Your task to perform on an android device: turn on improve location accuracy Image 0: 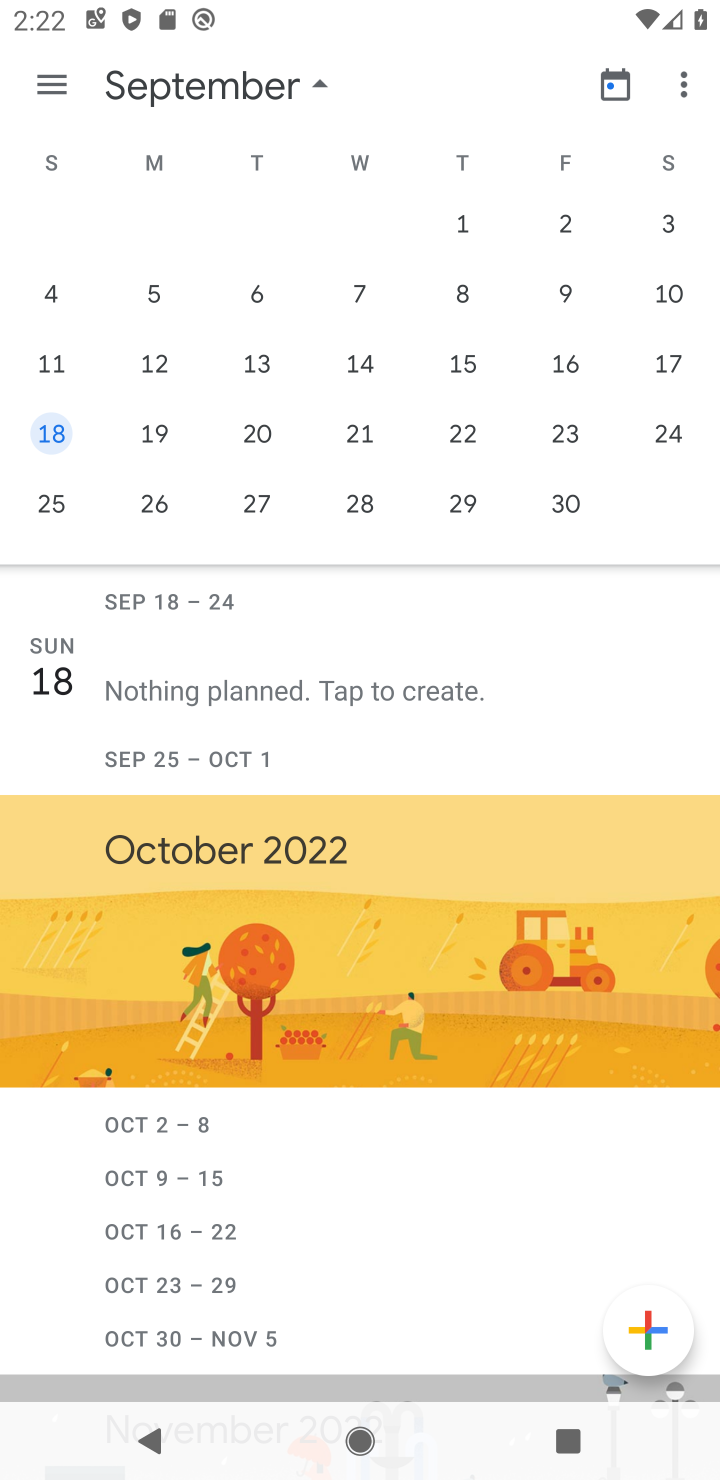
Step 0: press home button
Your task to perform on an android device: turn on improve location accuracy Image 1: 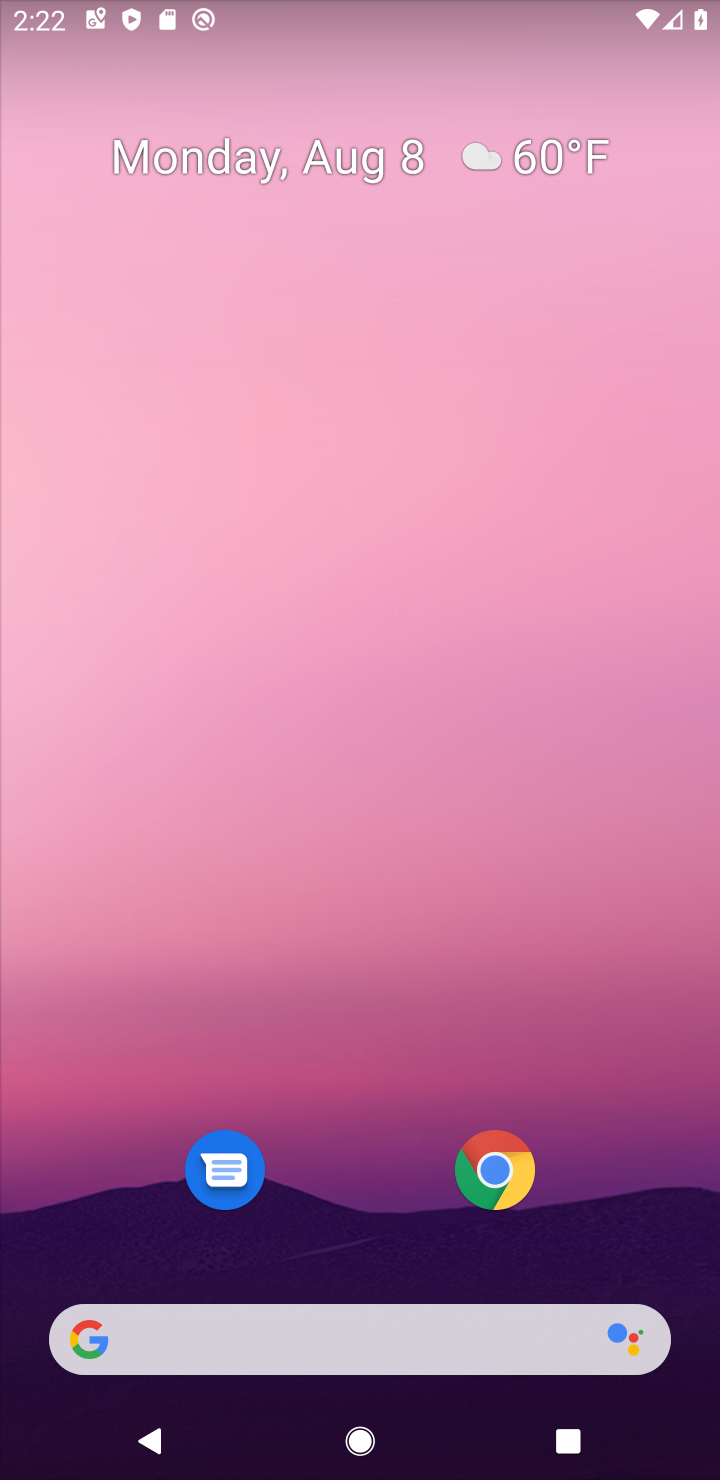
Step 1: drag from (301, 694) to (336, 317)
Your task to perform on an android device: turn on improve location accuracy Image 2: 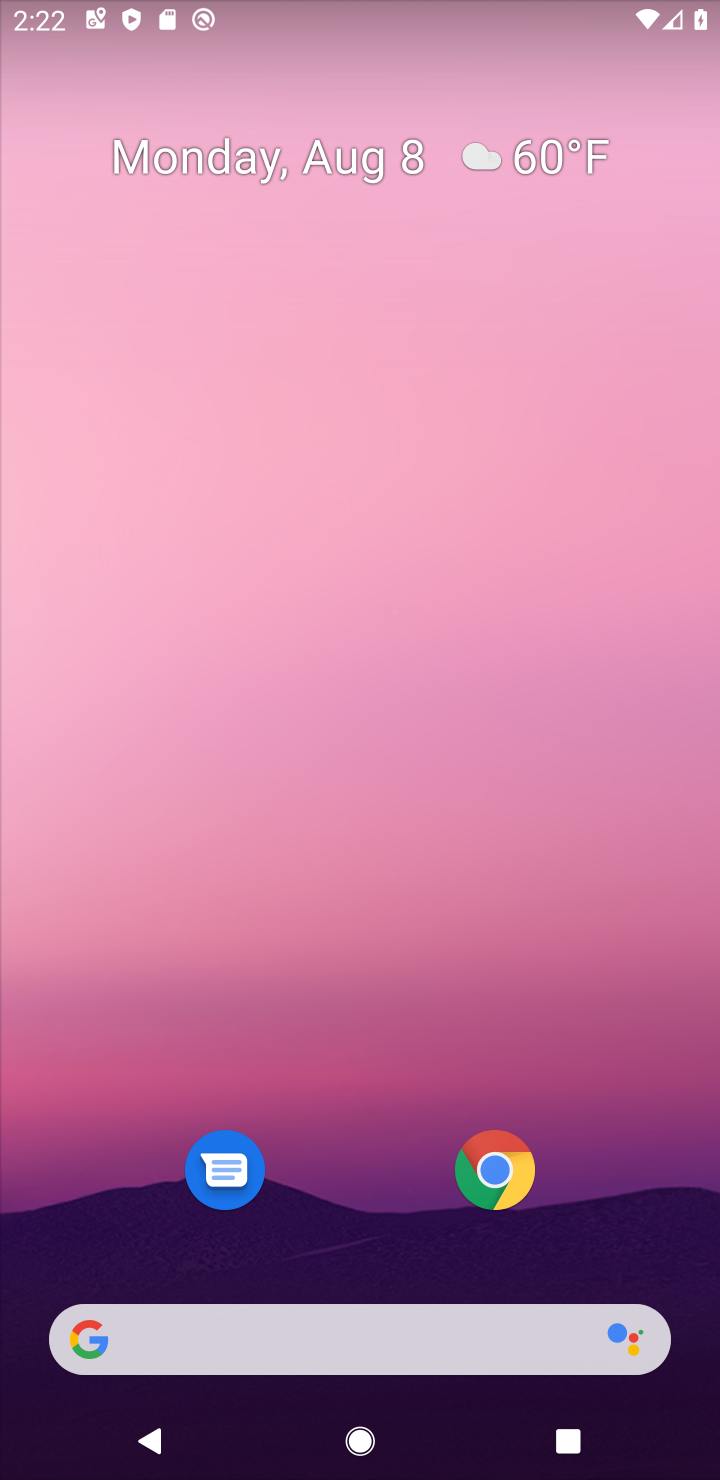
Step 2: drag from (362, 1203) to (405, 286)
Your task to perform on an android device: turn on improve location accuracy Image 3: 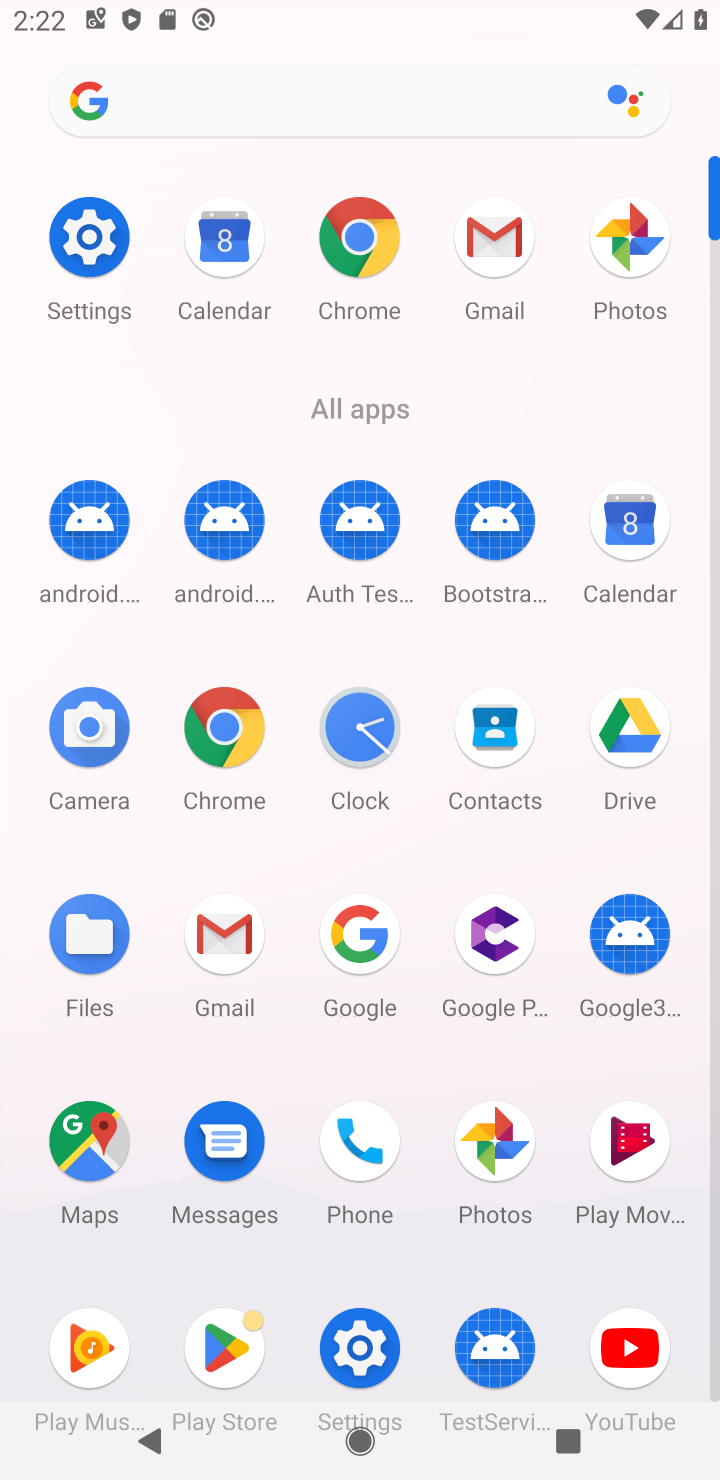
Step 3: click (84, 232)
Your task to perform on an android device: turn on improve location accuracy Image 4: 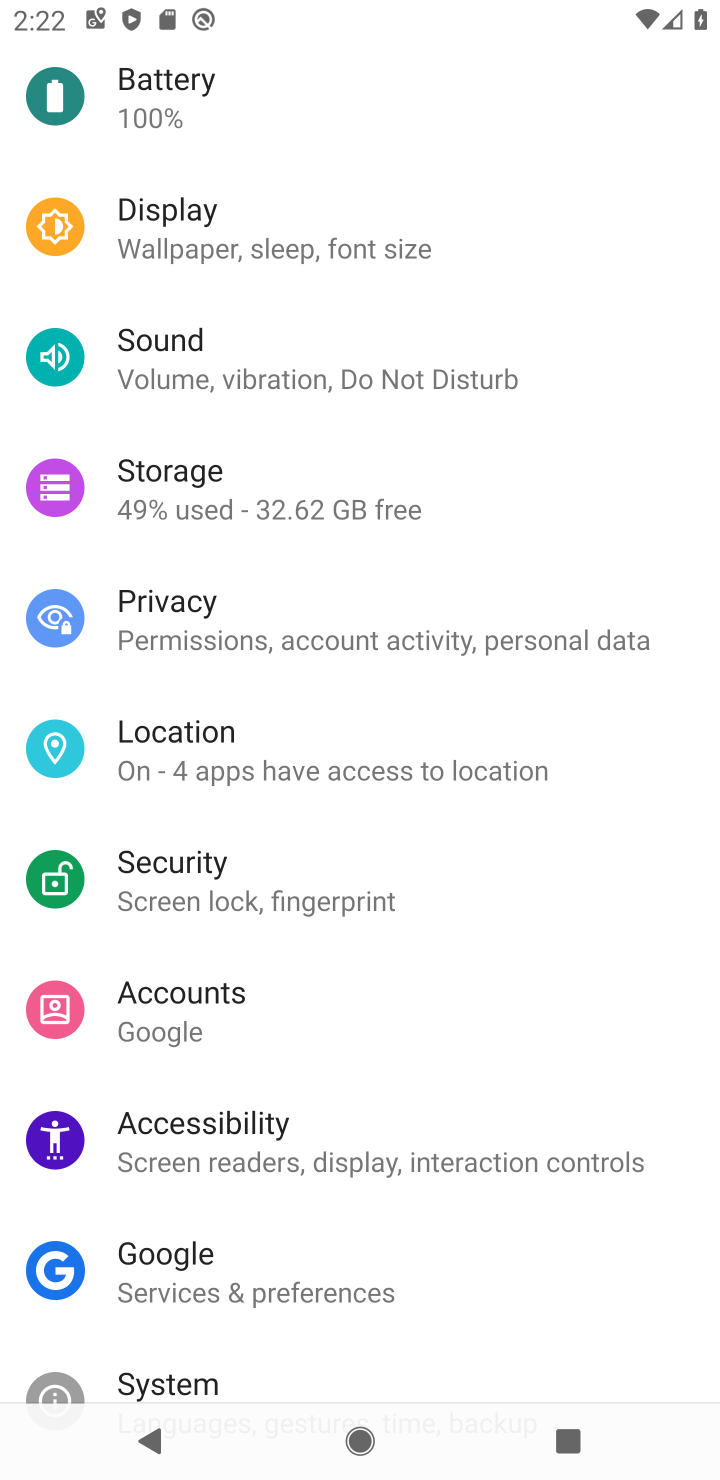
Step 4: click (309, 753)
Your task to perform on an android device: turn on improve location accuracy Image 5: 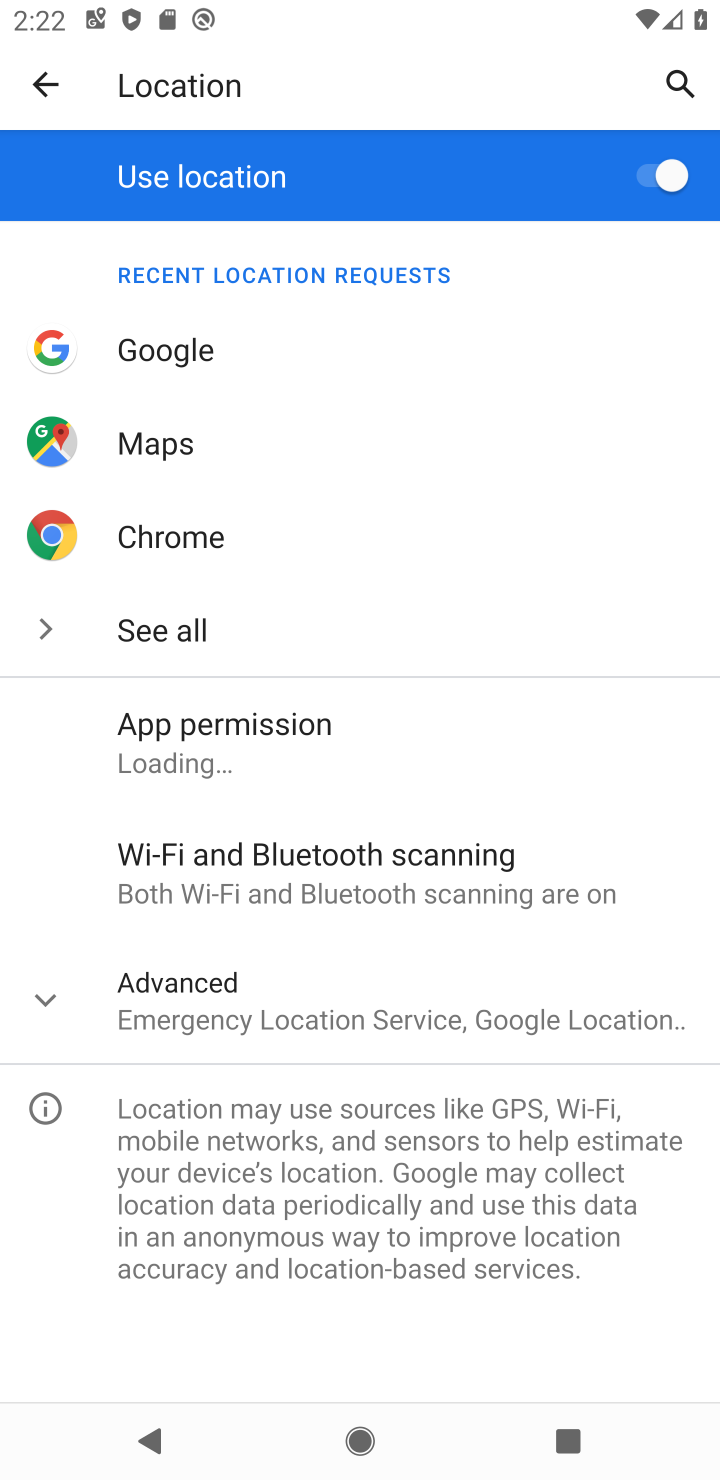
Step 5: click (341, 1028)
Your task to perform on an android device: turn on improve location accuracy Image 6: 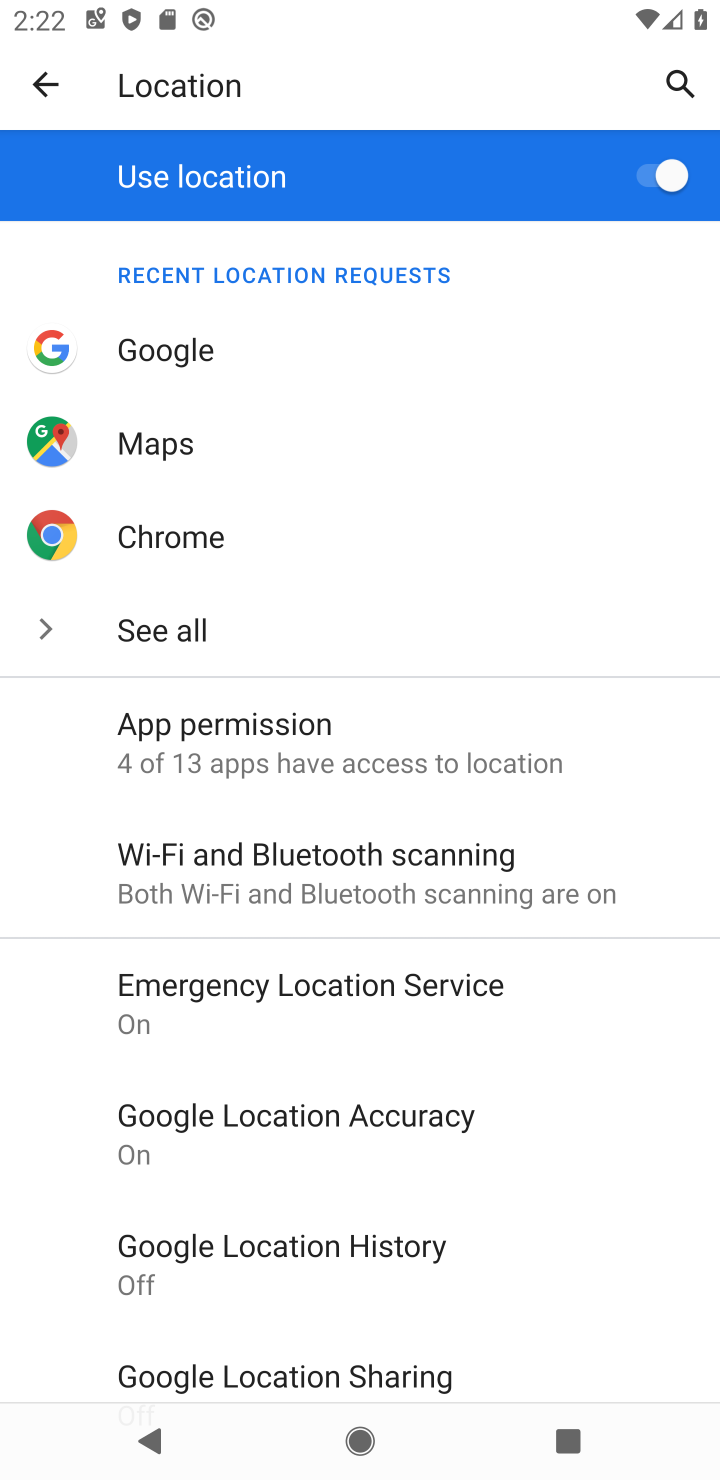
Step 6: click (326, 1116)
Your task to perform on an android device: turn on improve location accuracy Image 7: 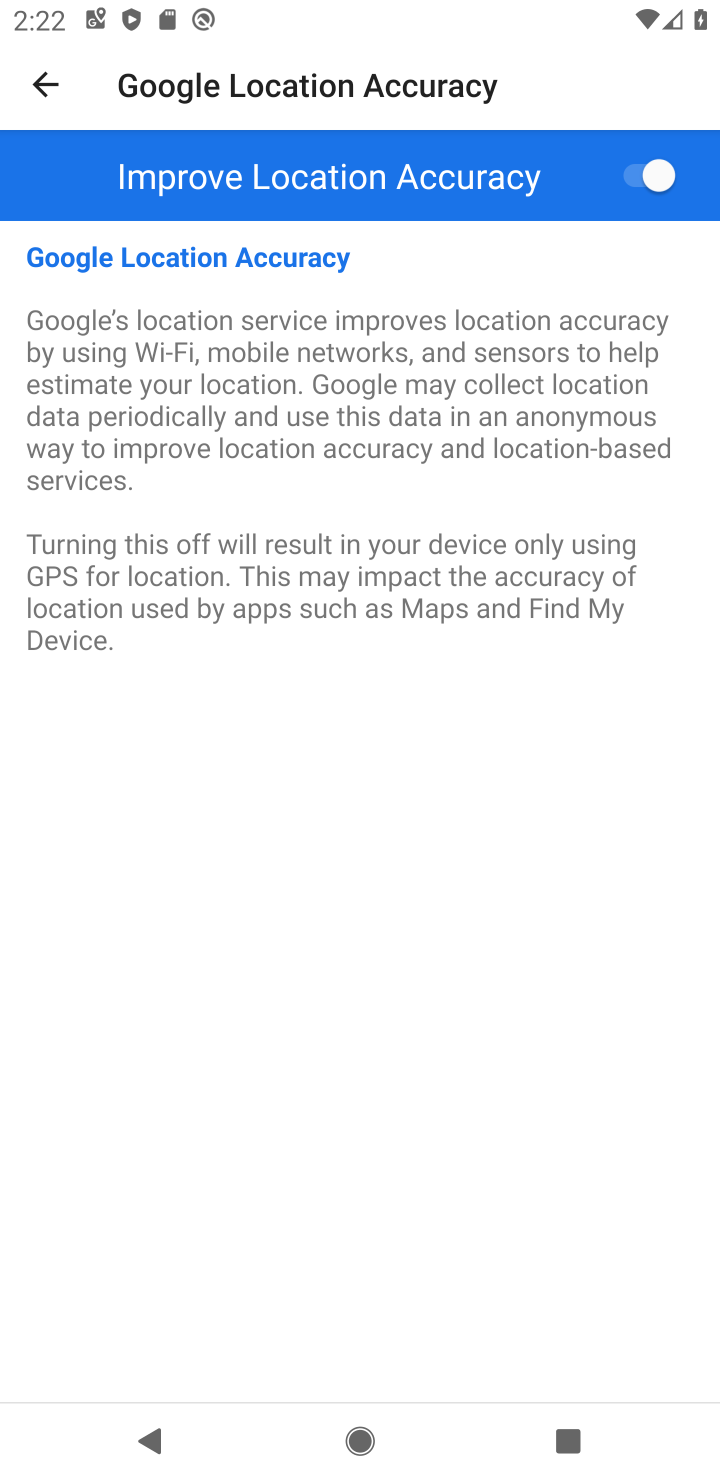
Step 7: task complete